Your task to perform on an android device: check android version Image 0: 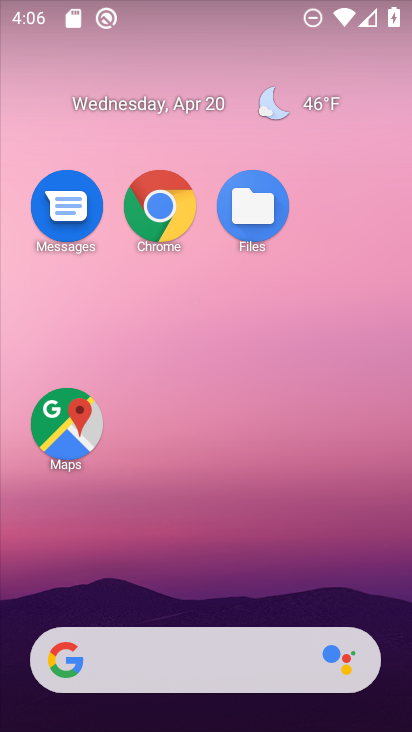
Step 0: drag from (209, 573) to (386, 10)
Your task to perform on an android device: check android version Image 1: 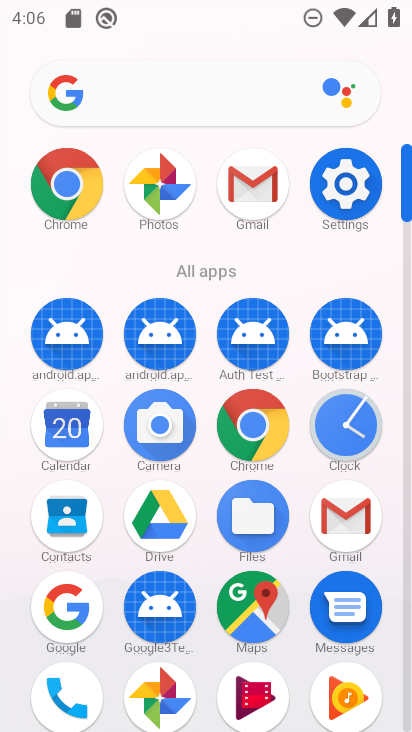
Step 1: click (357, 205)
Your task to perform on an android device: check android version Image 2: 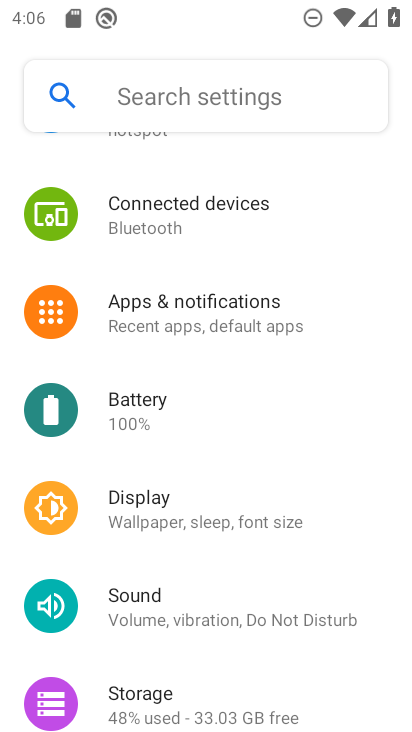
Step 2: drag from (158, 635) to (244, 201)
Your task to perform on an android device: check android version Image 3: 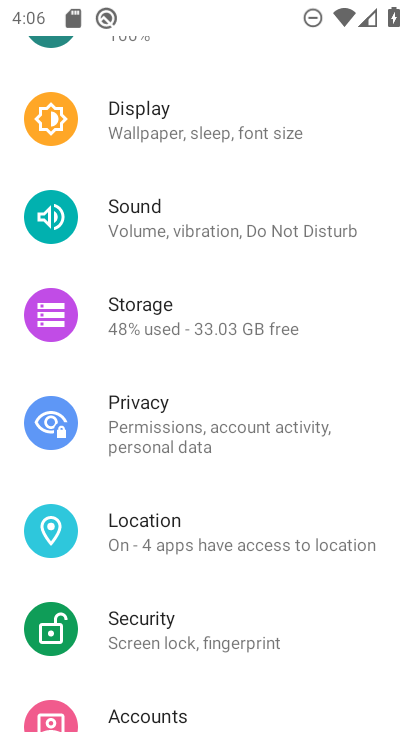
Step 3: drag from (160, 622) to (299, 127)
Your task to perform on an android device: check android version Image 4: 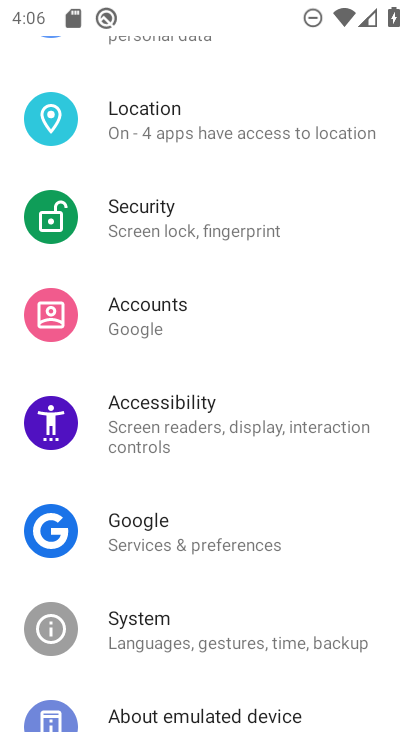
Step 4: drag from (190, 667) to (252, 341)
Your task to perform on an android device: check android version Image 5: 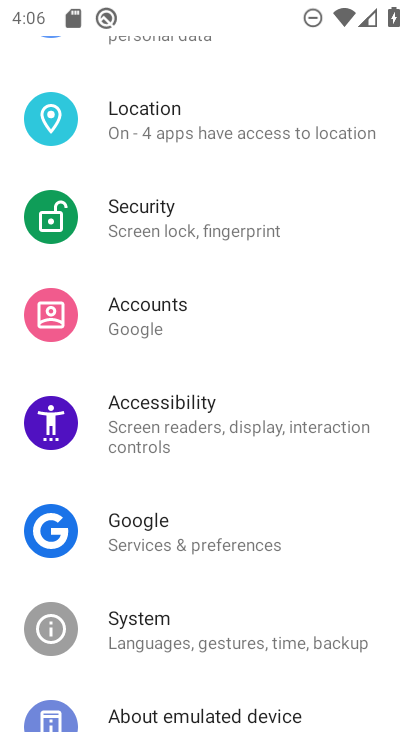
Step 5: click (180, 707)
Your task to perform on an android device: check android version Image 6: 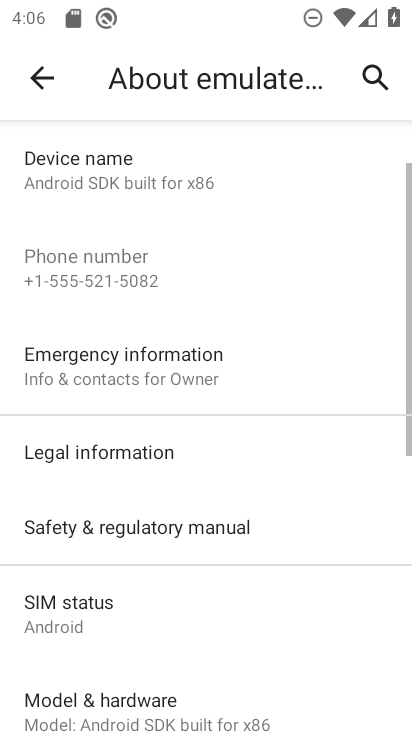
Step 6: drag from (156, 549) to (307, 86)
Your task to perform on an android device: check android version Image 7: 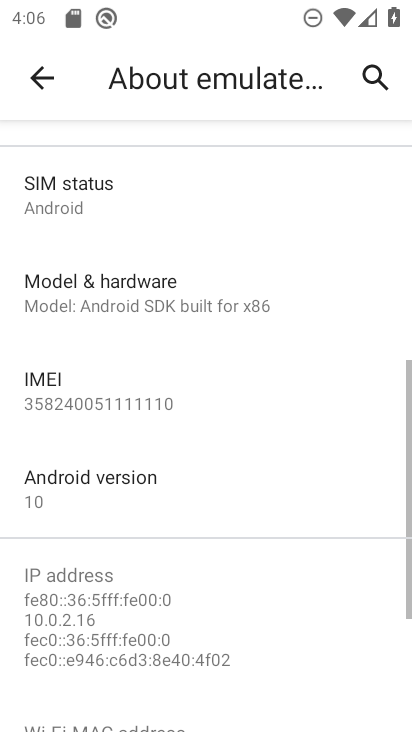
Step 7: click (111, 482)
Your task to perform on an android device: check android version Image 8: 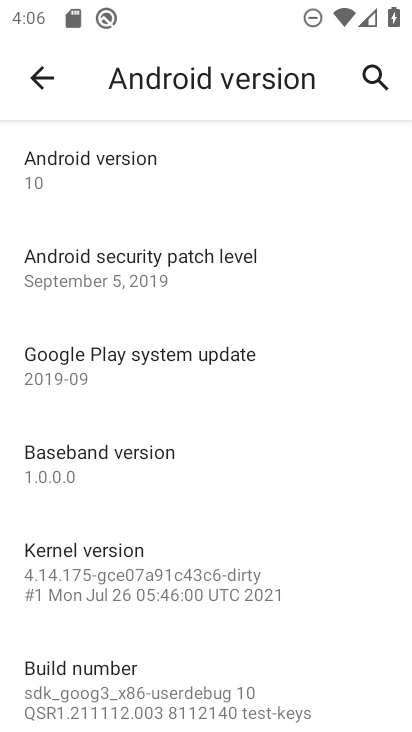
Step 8: task complete